Your task to perform on an android device: Go to eBay Image 0: 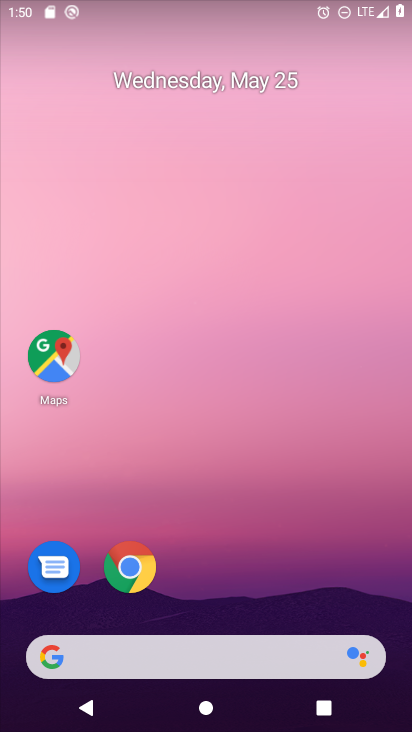
Step 0: click (131, 570)
Your task to perform on an android device: Go to eBay Image 1: 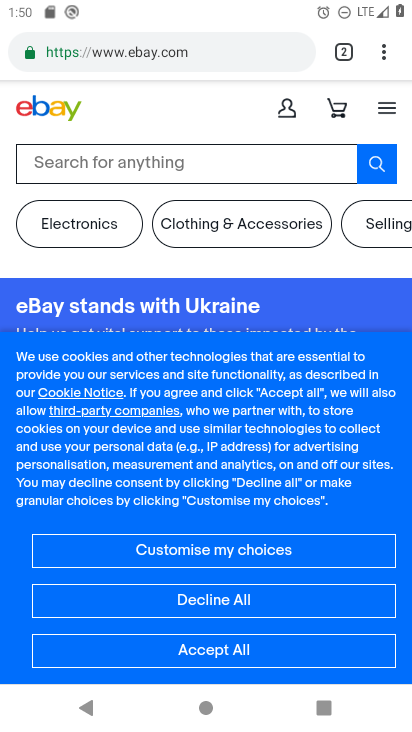
Step 1: click (250, 51)
Your task to perform on an android device: Go to eBay Image 2: 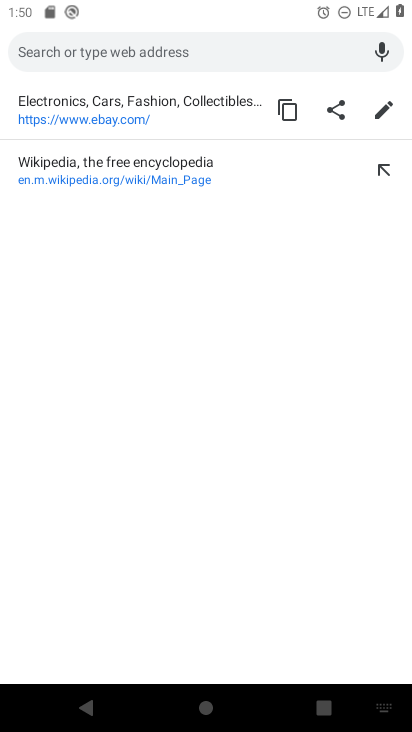
Step 2: type "eBay"
Your task to perform on an android device: Go to eBay Image 3: 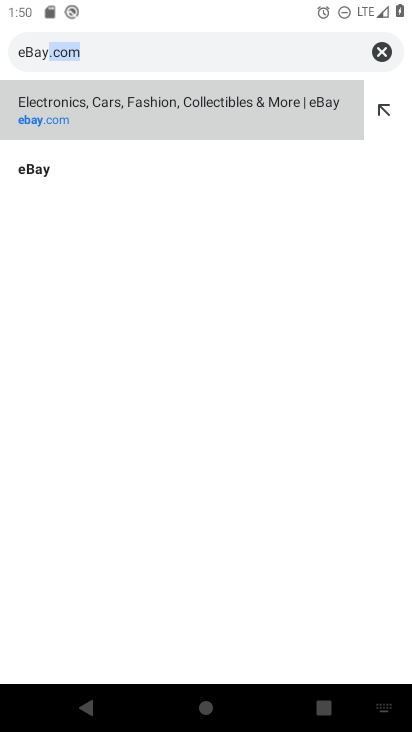
Step 3: click (36, 165)
Your task to perform on an android device: Go to eBay Image 4: 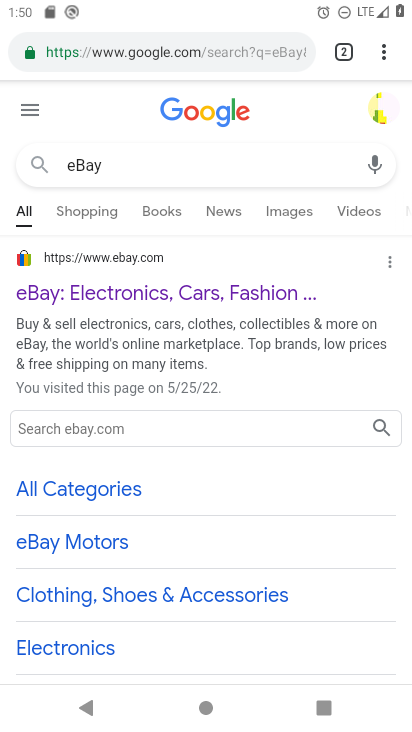
Step 4: task complete